Your task to perform on an android device: open a new tab in the chrome app Image 0: 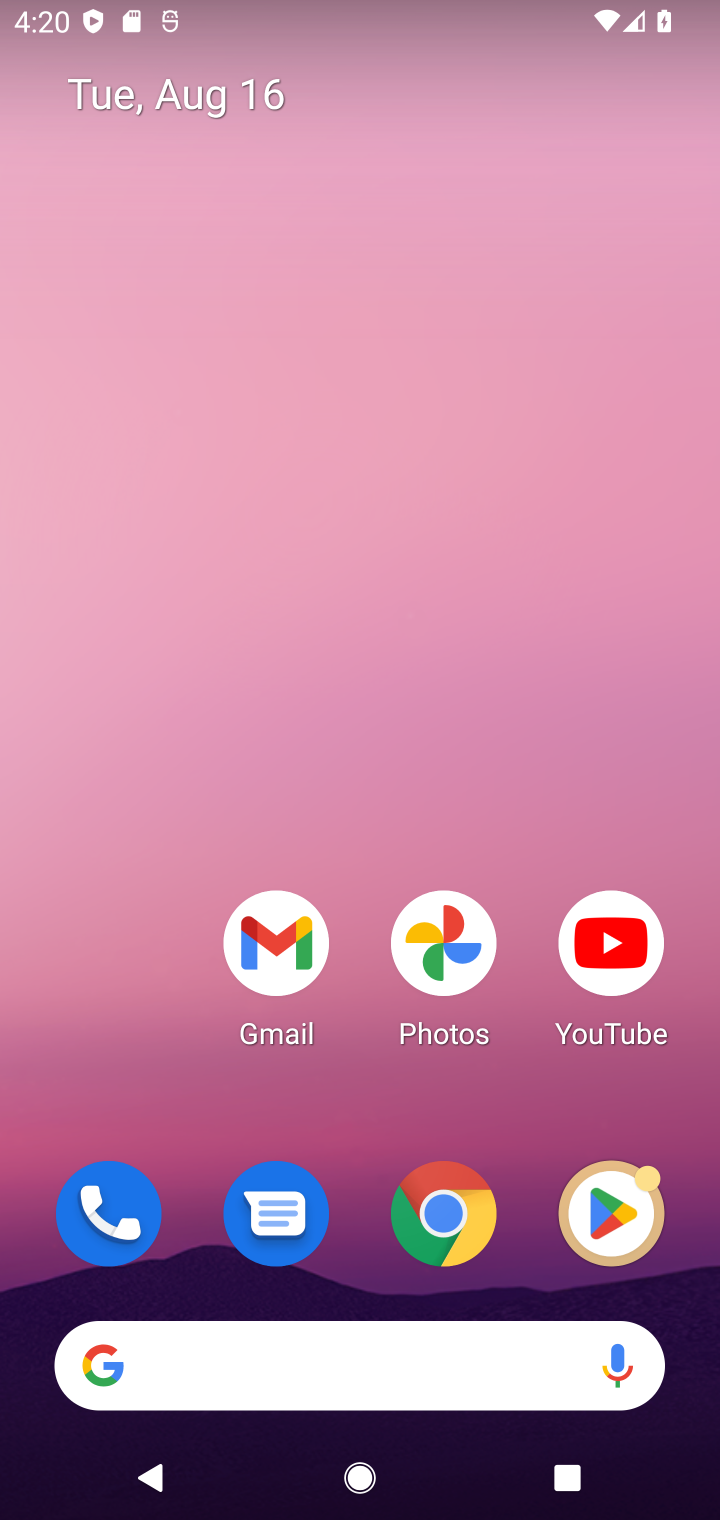
Step 0: drag from (346, 802) to (348, 22)
Your task to perform on an android device: open a new tab in the chrome app Image 1: 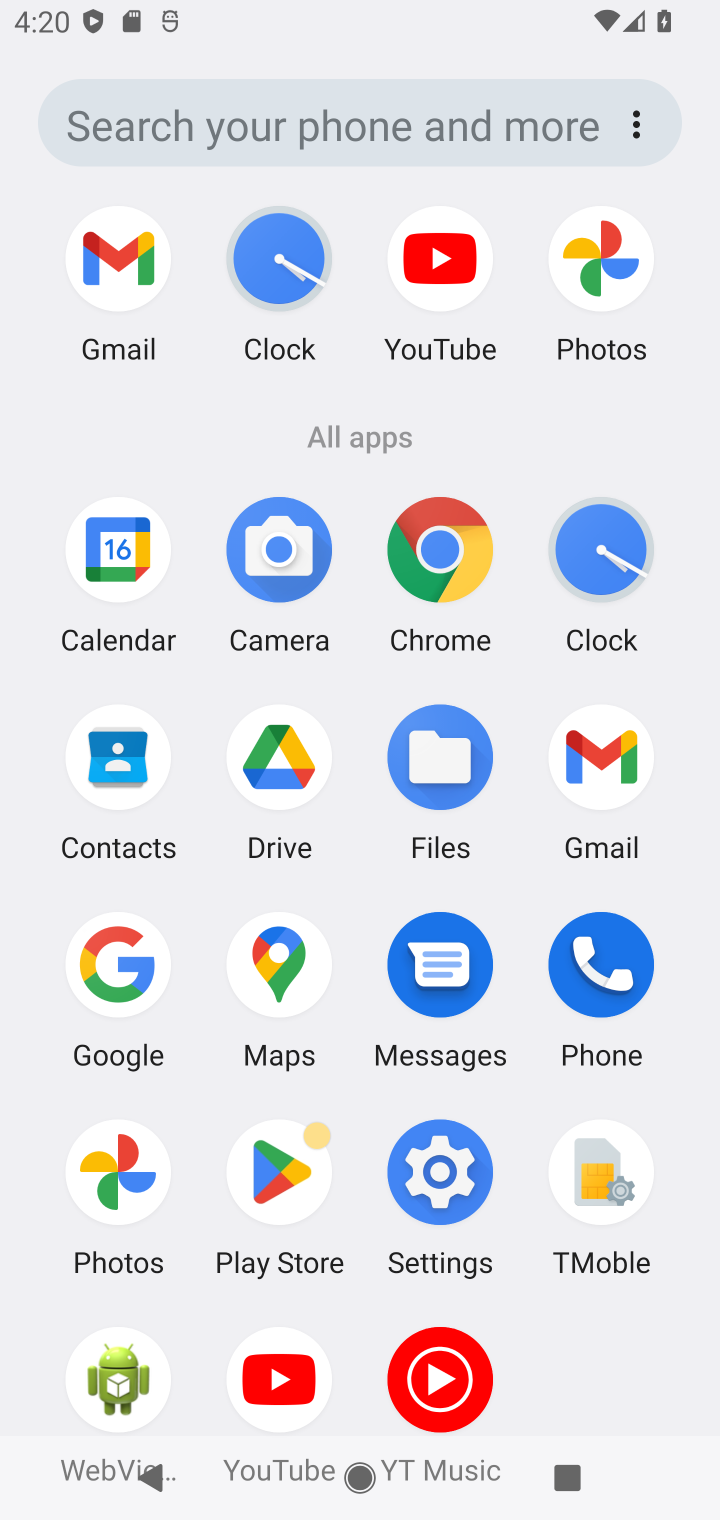
Step 1: click (433, 549)
Your task to perform on an android device: open a new tab in the chrome app Image 2: 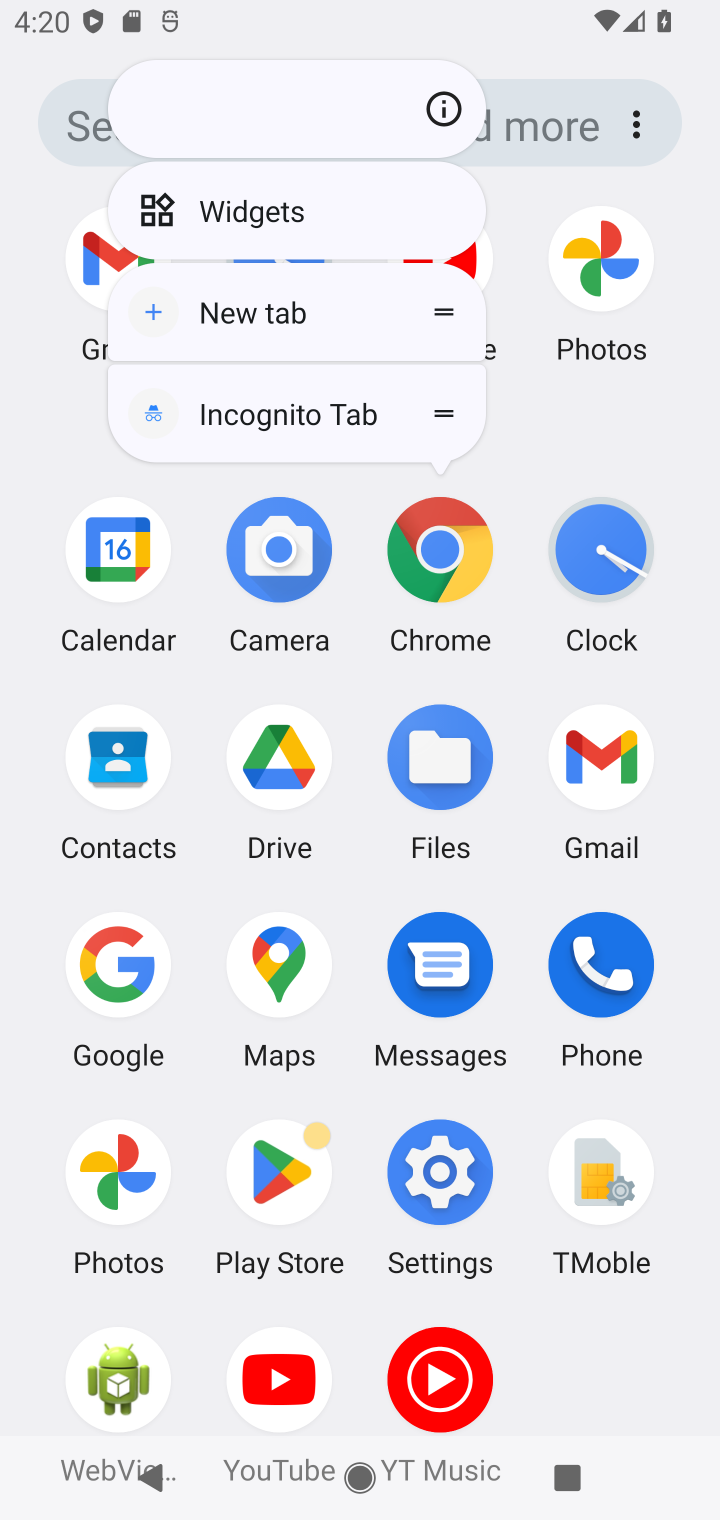
Step 2: click (448, 568)
Your task to perform on an android device: open a new tab in the chrome app Image 3: 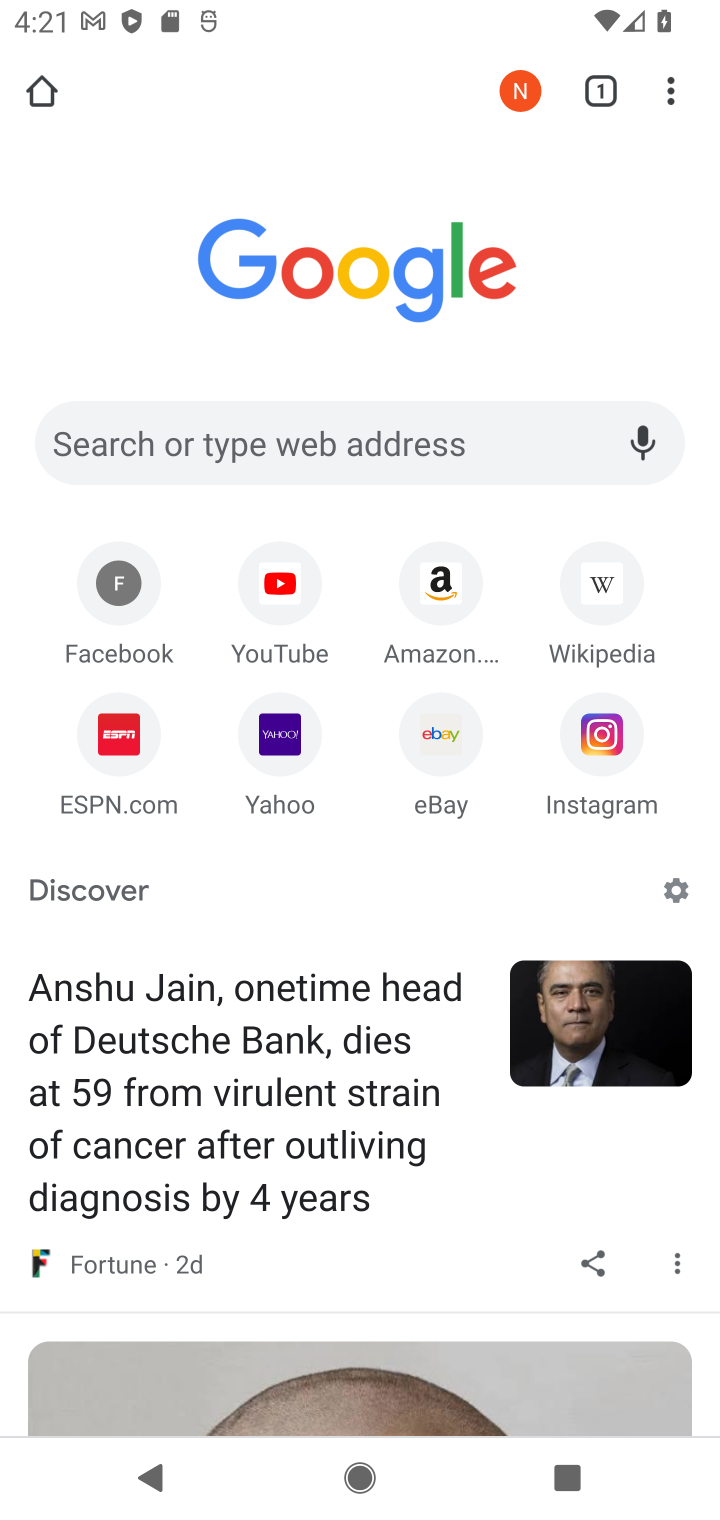
Step 3: task complete